Your task to perform on an android device: open app "Booking.com: Hotels and more" (install if not already installed) and go to login screen Image 0: 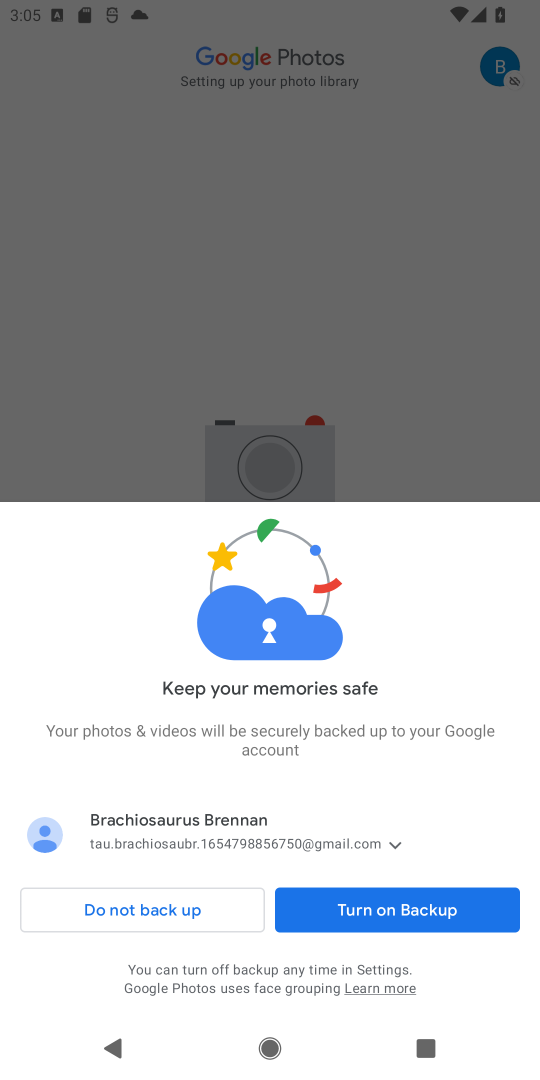
Step 0: press home button
Your task to perform on an android device: open app "Booking.com: Hotels and more" (install if not already installed) and go to login screen Image 1: 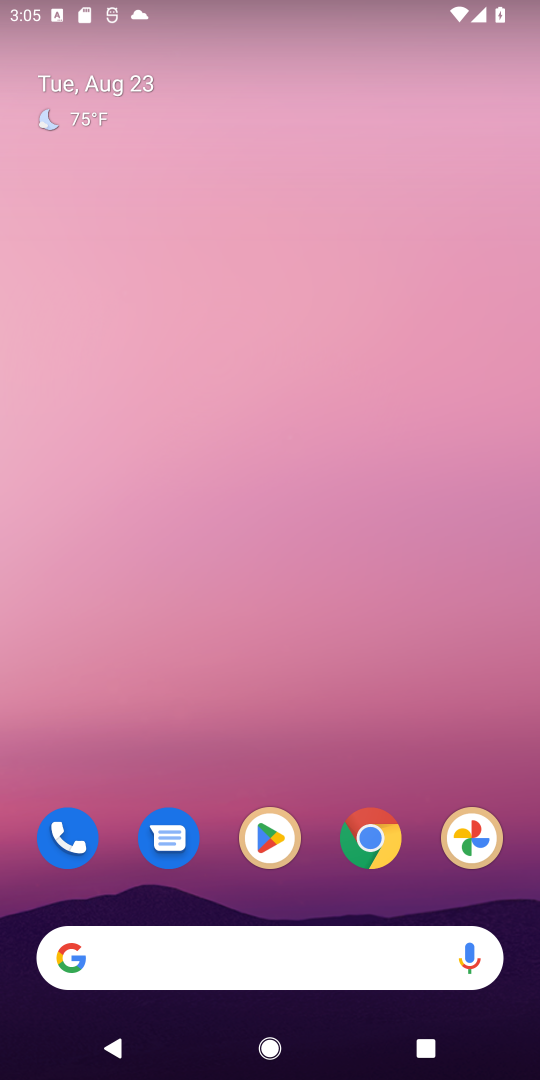
Step 1: click (258, 841)
Your task to perform on an android device: open app "Booking.com: Hotels and more" (install if not already installed) and go to login screen Image 2: 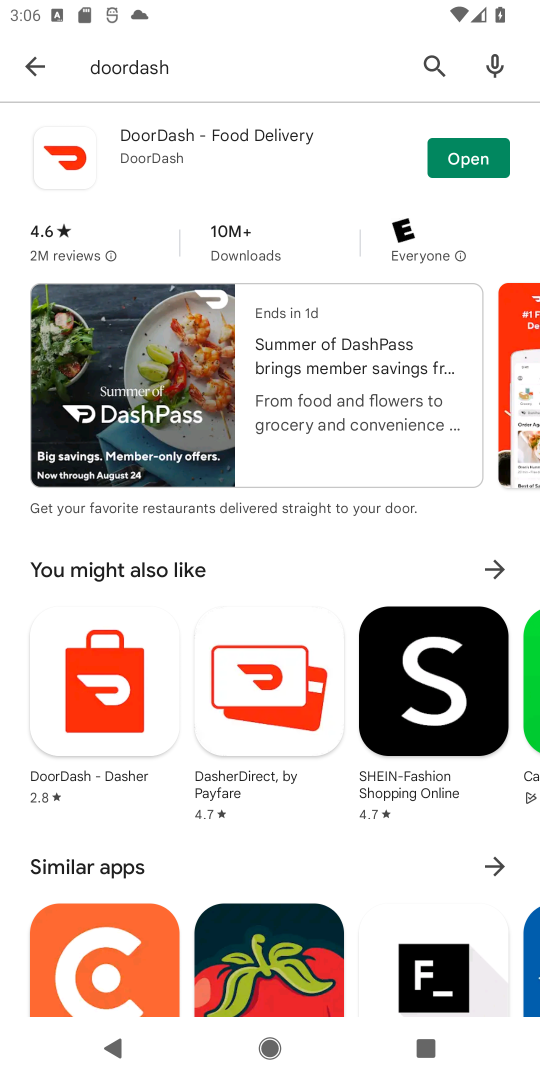
Step 2: click (12, 53)
Your task to perform on an android device: open app "Booking.com: Hotels and more" (install if not already installed) and go to login screen Image 3: 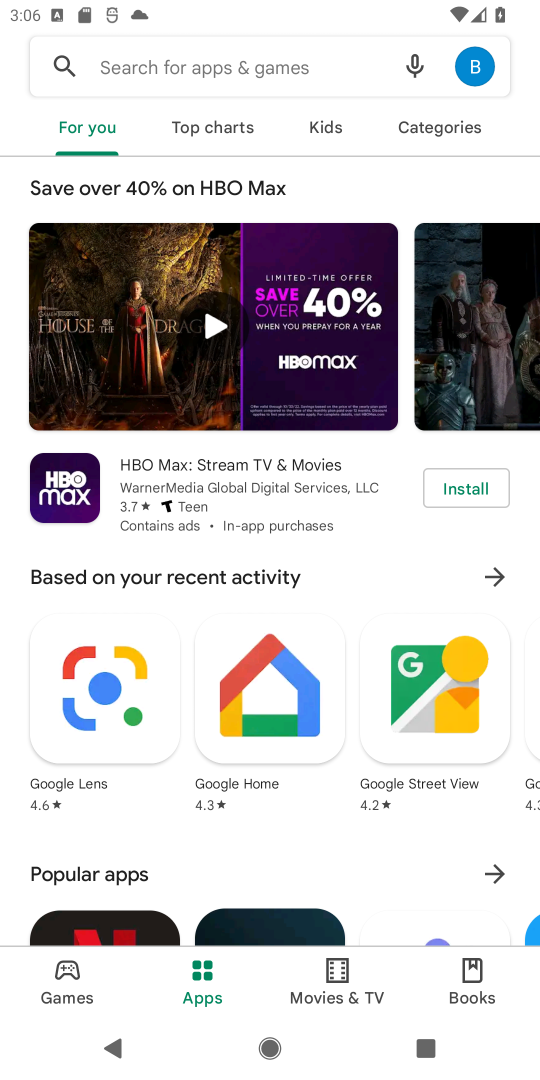
Step 3: click (147, 76)
Your task to perform on an android device: open app "Booking.com: Hotels and more" (install if not already installed) and go to login screen Image 4: 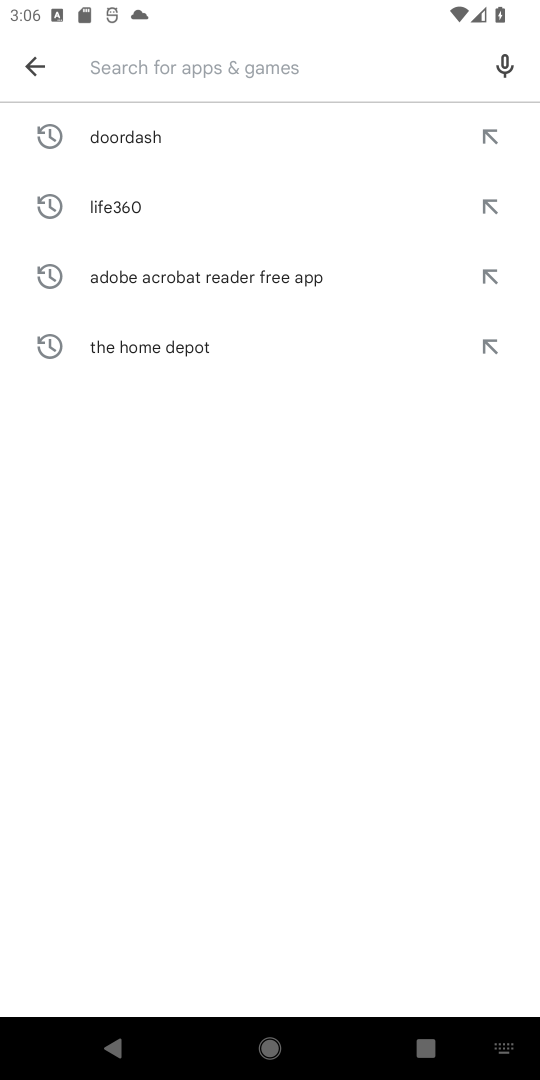
Step 4: type "Booking.com: Hotels and more"
Your task to perform on an android device: open app "Booking.com: Hotels and more" (install if not already installed) and go to login screen Image 5: 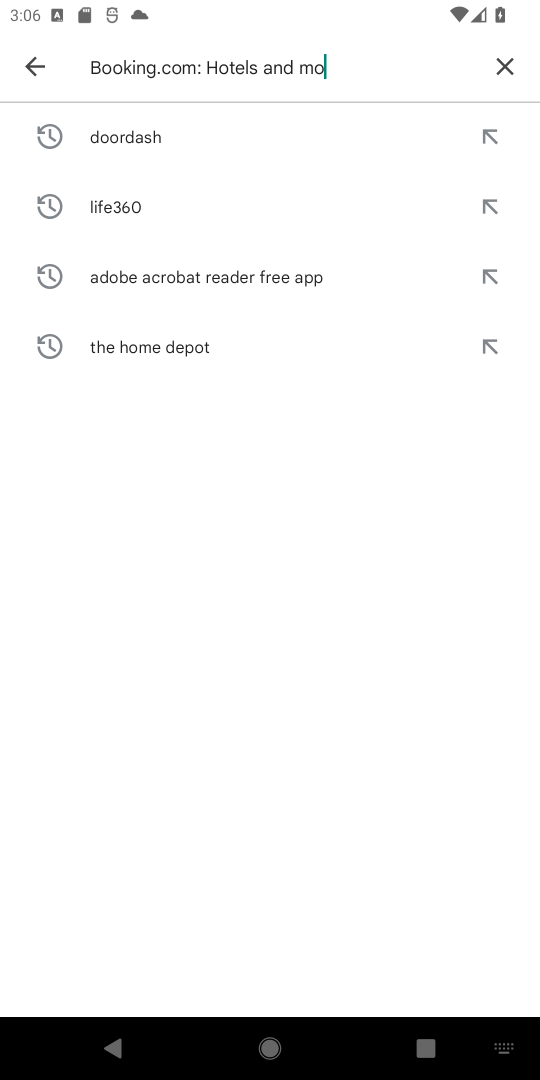
Step 5: type ""
Your task to perform on an android device: open app "Booking.com: Hotels and more" (install if not already installed) and go to login screen Image 6: 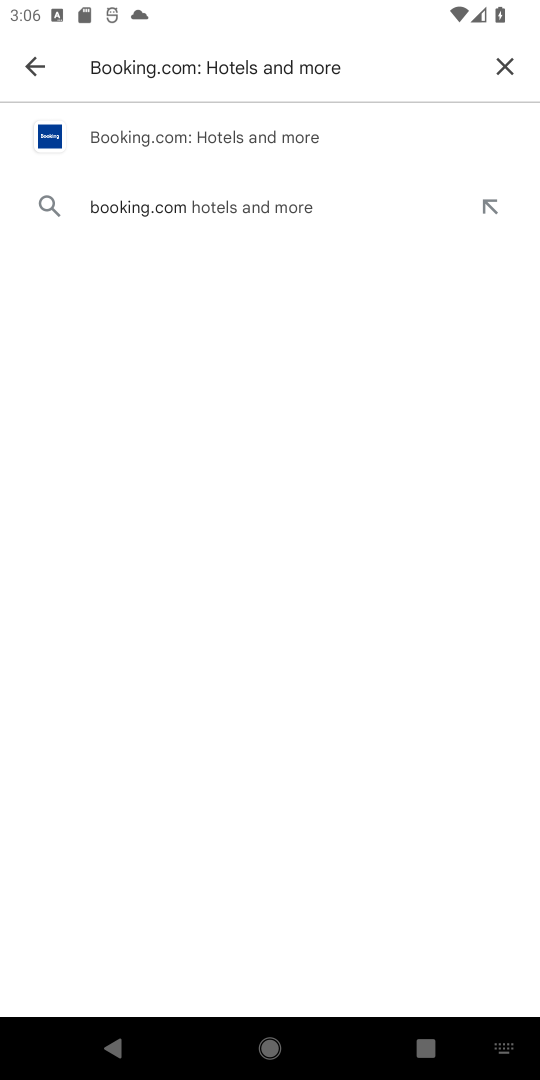
Step 6: click (144, 123)
Your task to perform on an android device: open app "Booking.com: Hotels and more" (install if not already installed) and go to login screen Image 7: 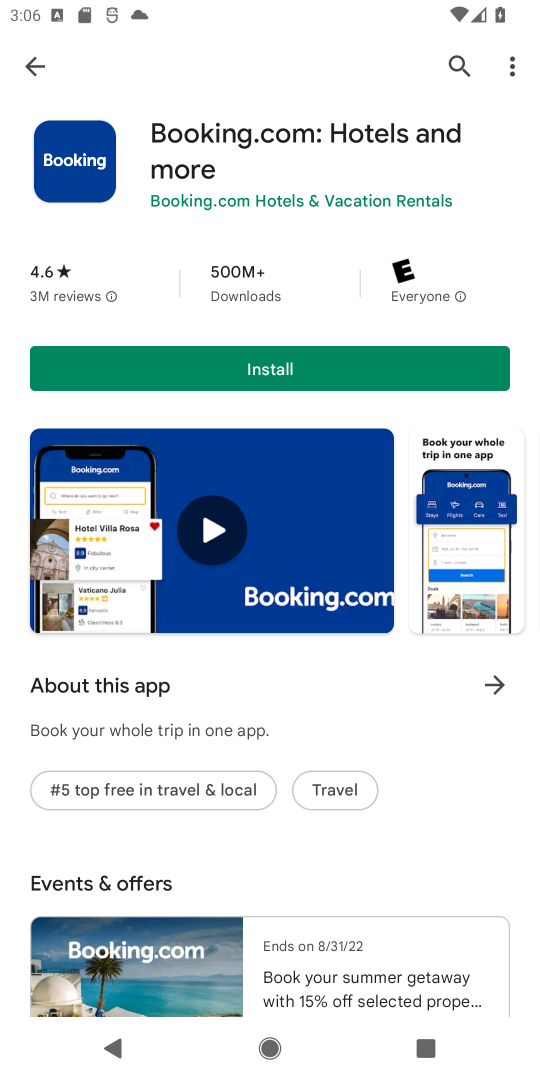
Step 7: click (258, 383)
Your task to perform on an android device: open app "Booking.com: Hotels and more" (install if not already installed) and go to login screen Image 8: 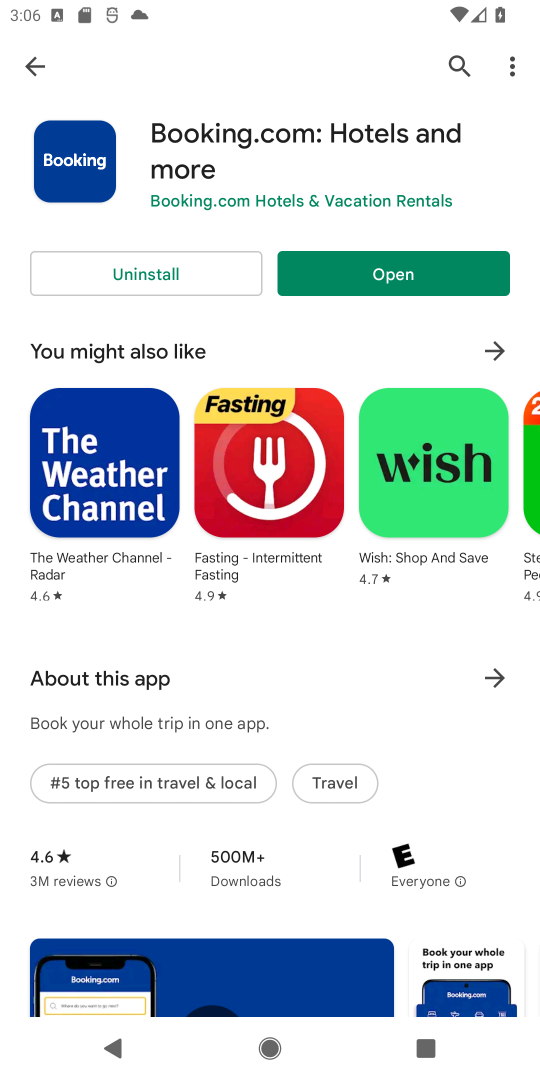
Step 8: click (358, 278)
Your task to perform on an android device: open app "Booking.com: Hotels and more" (install if not already installed) and go to login screen Image 9: 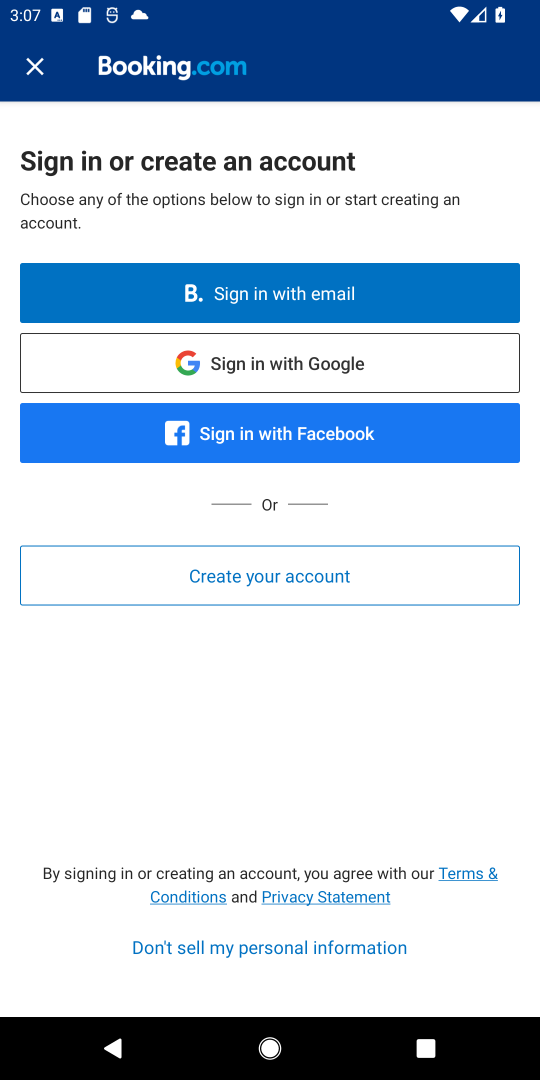
Step 9: task complete